Your task to perform on an android device: change the clock style Image 0: 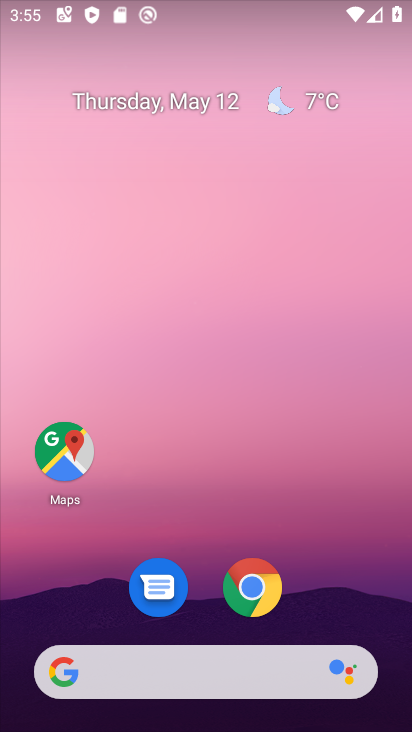
Step 0: drag from (218, 467) to (192, 268)
Your task to perform on an android device: change the clock style Image 1: 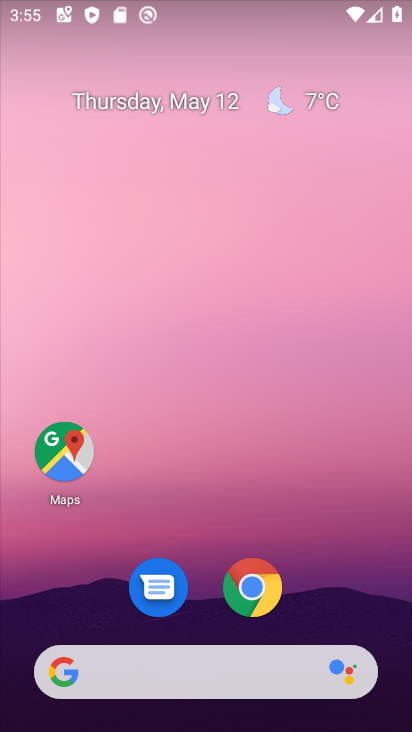
Step 1: drag from (310, 515) to (288, 136)
Your task to perform on an android device: change the clock style Image 2: 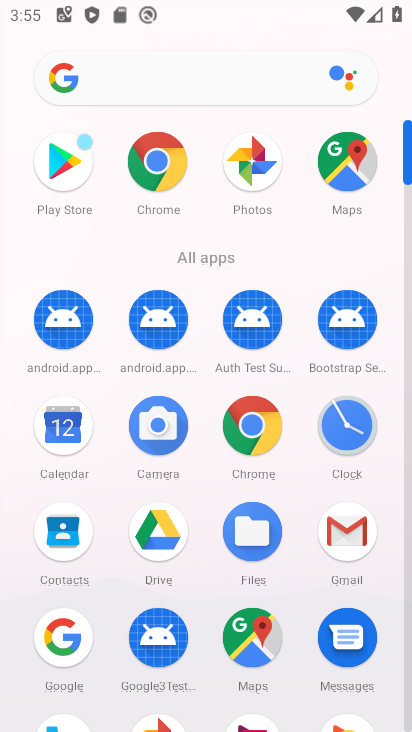
Step 2: drag from (210, 635) to (213, 436)
Your task to perform on an android device: change the clock style Image 3: 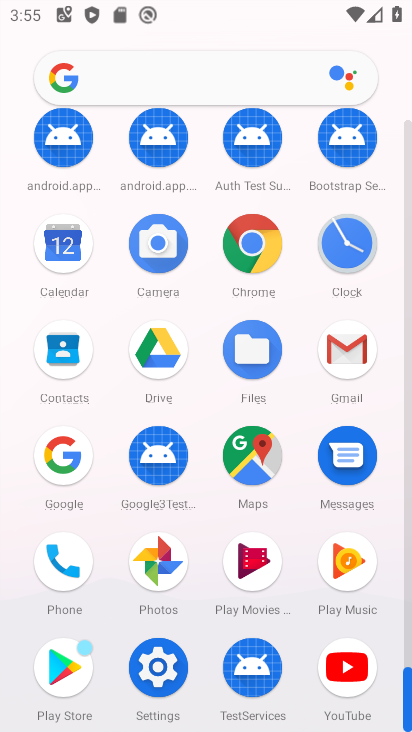
Step 3: click (354, 254)
Your task to perform on an android device: change the clock style Image 4: 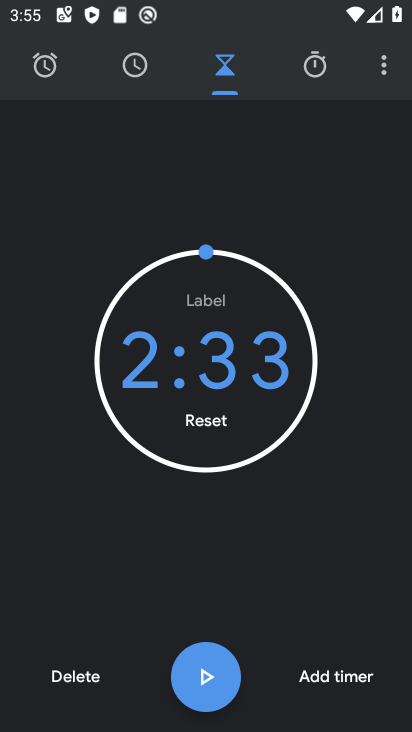
Step 4: click (377, 71)
Your task to perform on an android device: change the clock style Image 5: 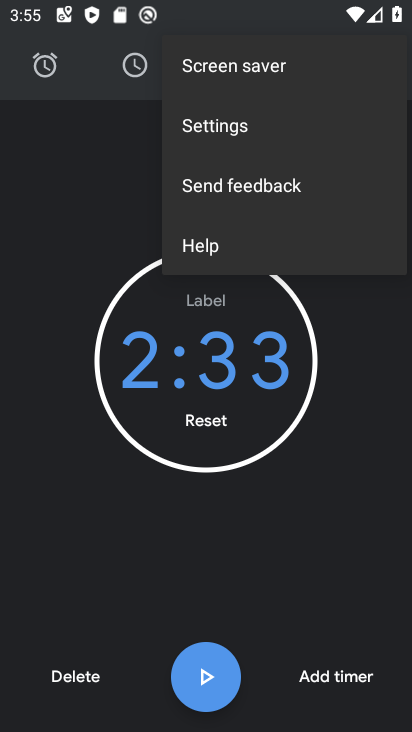
Step 5: click (235, 117)
Your task to perform on an android device: change the clock style Image 6: 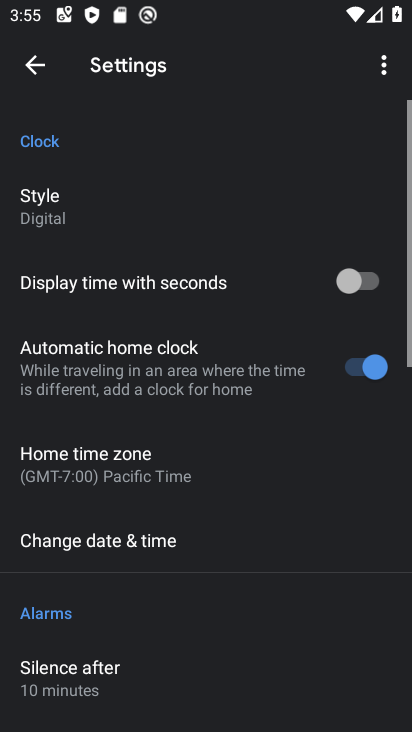
Step 6: click (38, 222)
Your task to perform on an android device: change the clock style Image 7: 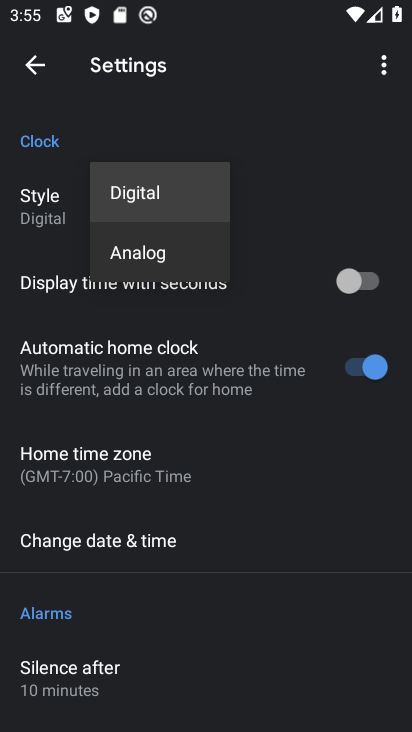
Step 7: click (145, 252)
Your task to perform on an android device: change the clock style Image 8: 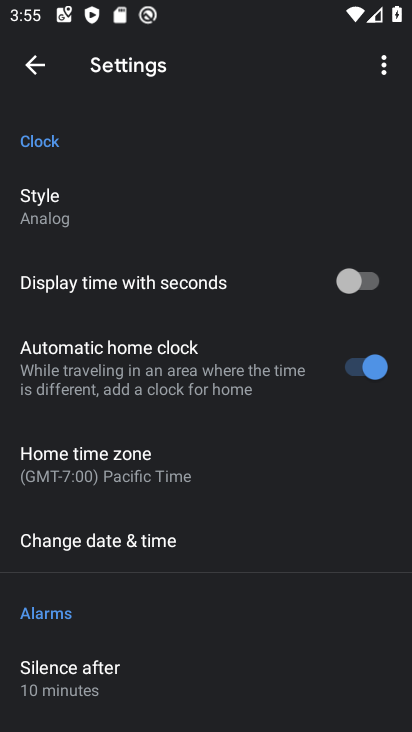
Step 8: task complete